Your task to perform on an android device: Open Google Chrome and click the shortcut for Amazon.com Image 0: 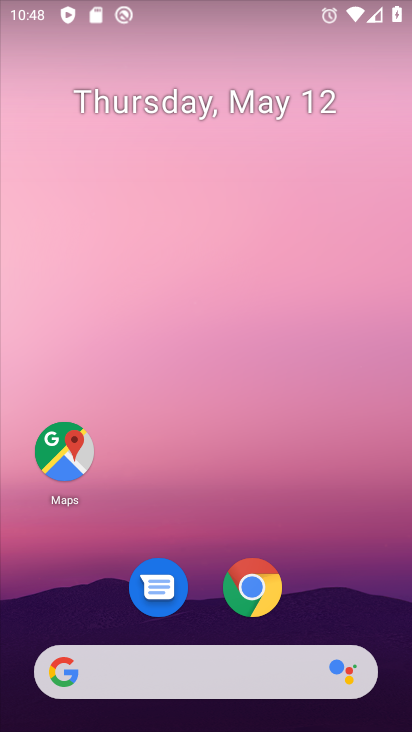
Step 0: drag from (384, 507) to (358, 14)
Your task to perform on an android device: Open Google Chrome and click the shortcut for Amazon.com Image 1: 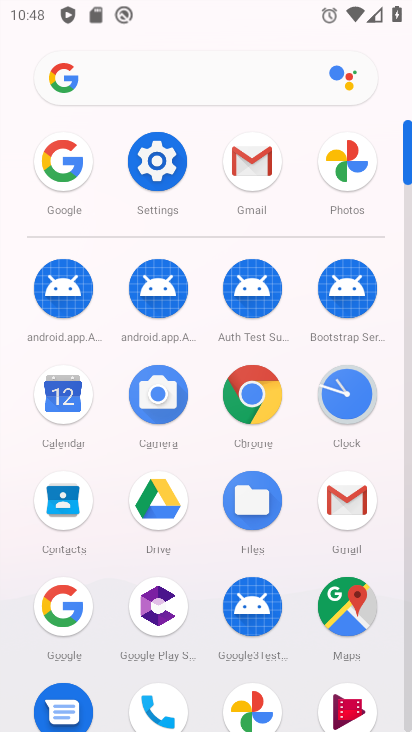
Step 1: click (262, 392)
Your task to perform on an android device: Open Google Chrome and click the shortcut for Amazon.com Image 2: 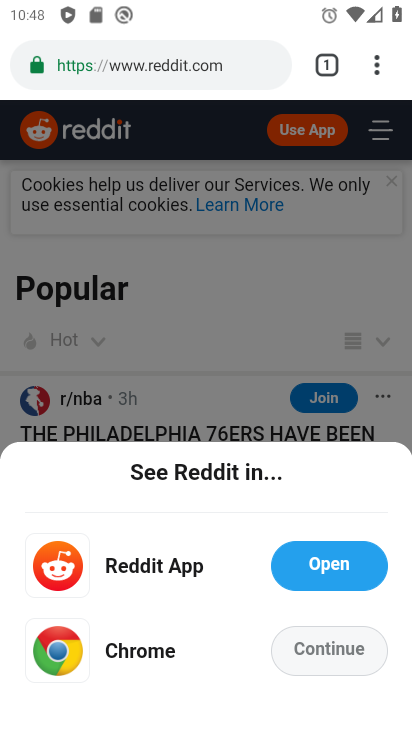
Step 2: click (381, 56)
Your task to perform on an android device: Open Google Chrome and click the shortcut for Amazon.com Image 3: 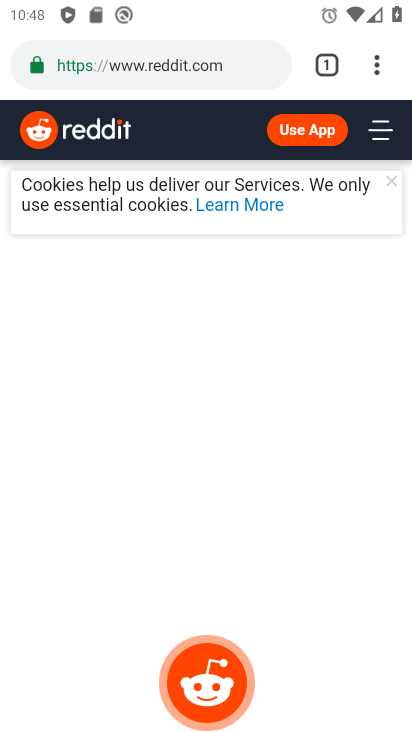
Step 3: click (177, 60)
Your task to perform on an android device: Open Google Chrome and click the shortcut for Amazon.com Image 4: 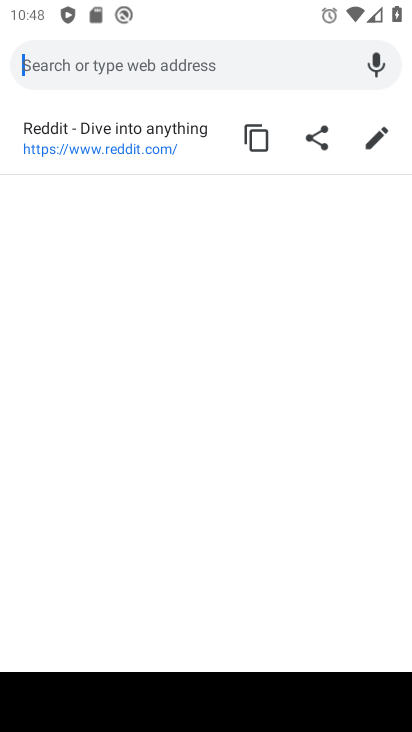
Step 4: type "amazon"
Your task to perform on an android device: Open Google Chrome and click the shortcut for Amazon.com Image 5: 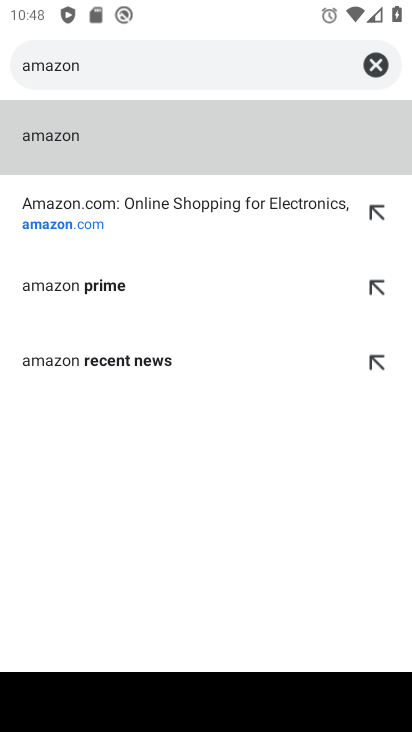
Step 5: click (75, 220)
Your task to perform on an android device: Open Google Chrome and click the shortcut for Amazon.com Image 6: 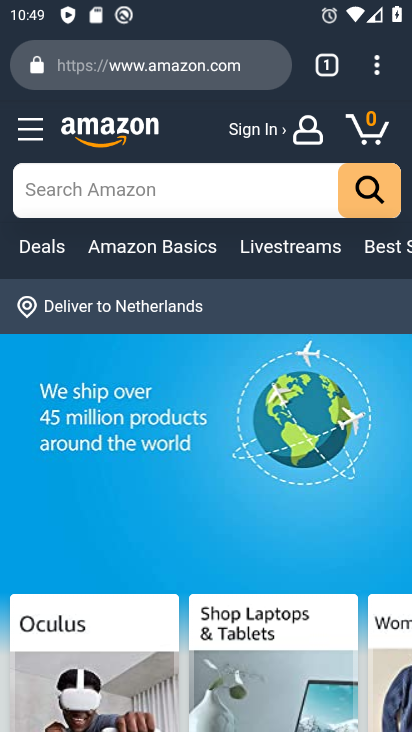
Step 6: drag from (378, 66) to (243, 517)
Your task to perform on an android device: Open Google Chrome and click the shortcut for Amazon.com Image 7: 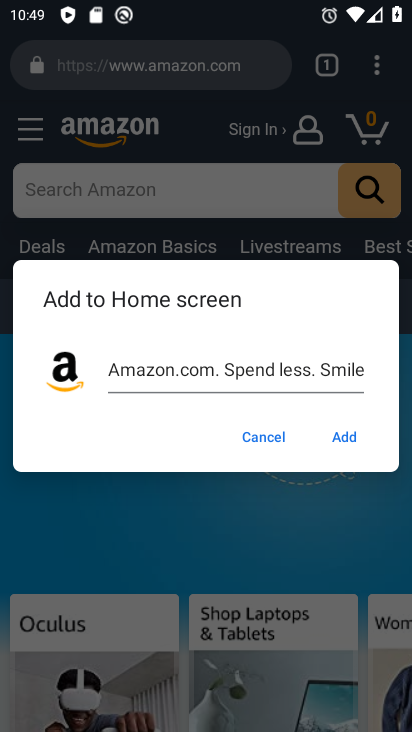
Step 7: click (357, 431)
Your task to perform on an android device: Open Google Chrome and click the shortcut for Amazon.com Image 8: 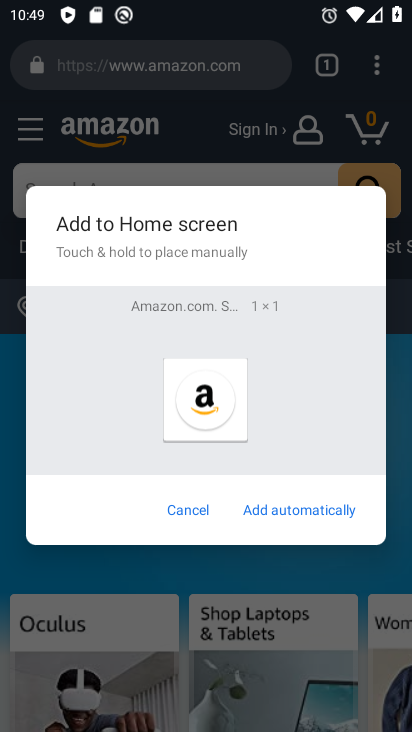
Step 8: click (331, 504)
Your task to perform on an android device: Open Google Chrome and click the shortcut for Amazon.com Image 9: 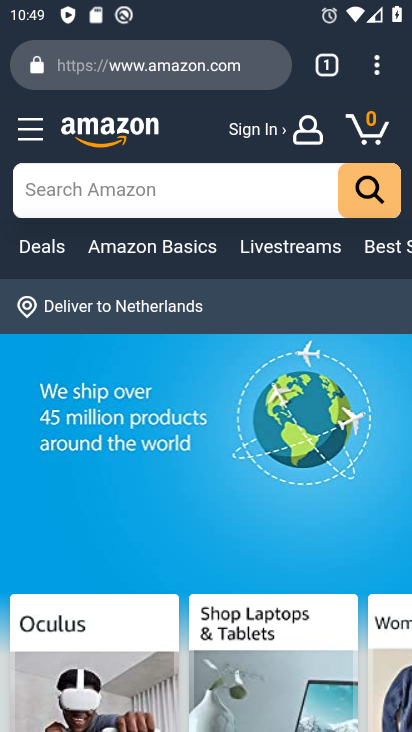
Step 9: task complete